Your task to perform on an android device: check google app version Image 0: 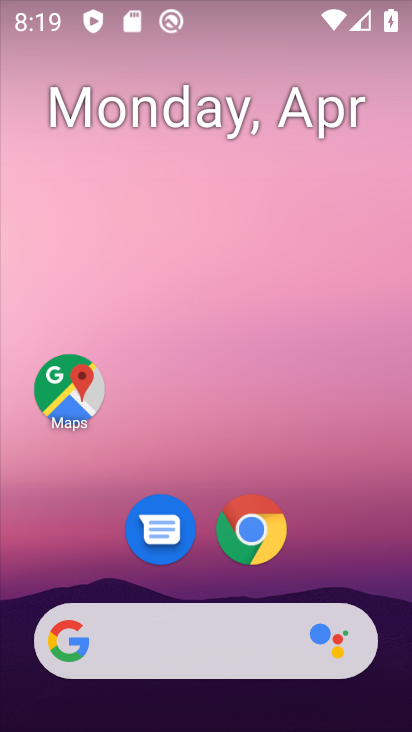
Step 0: drag from (367, 543) to (367, 166)
Your task to perform on an android device: check google app version Image 1: 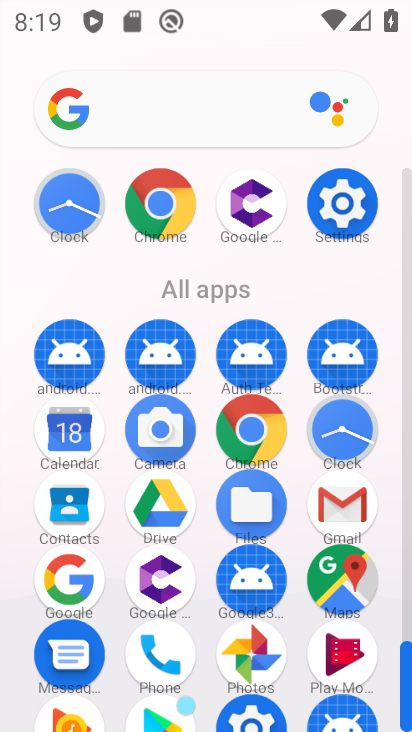
Step 1: click (71, 573)
Your task to perform on an android device: check google app version Image 2: 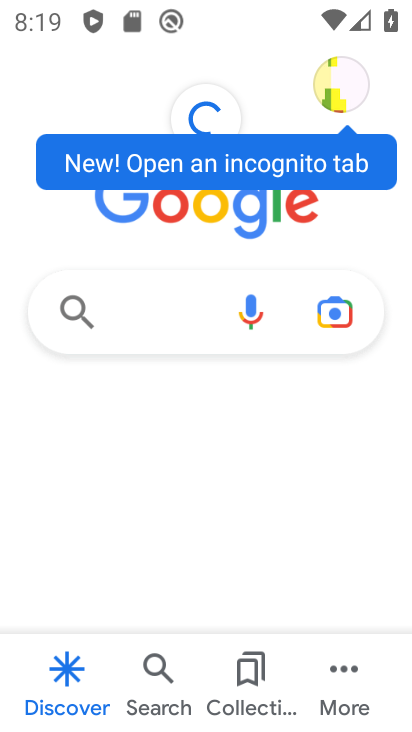
Step 2: click (361, 671)
Your task to perform on an android device: check google app version Image 3: 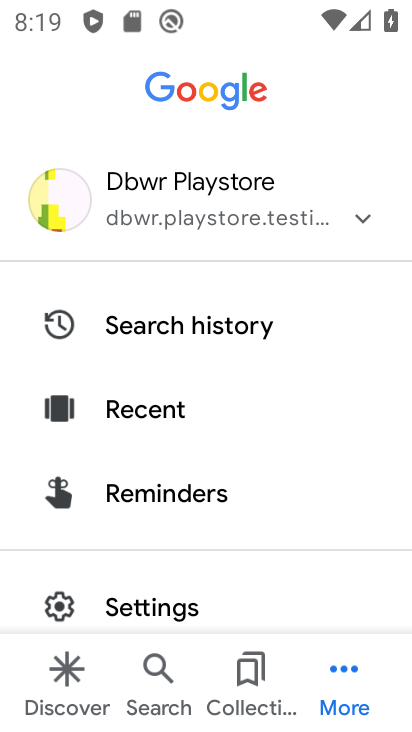
Step 3: click (195, 601)
Your task to perform on an android device: check google app version Image 4: 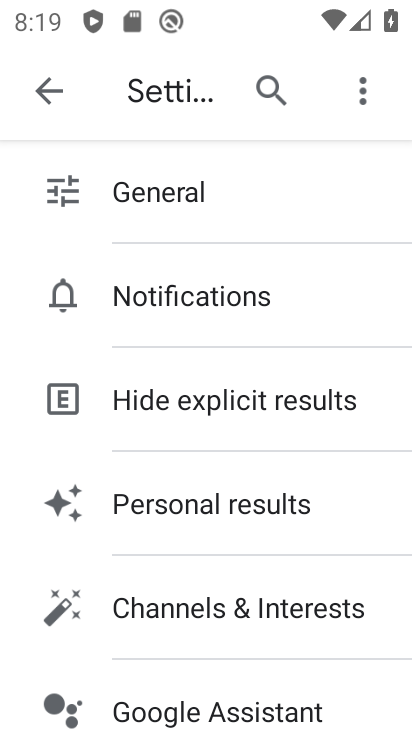
Step 4: drag from (328, 660) to (339, 292)
Your task to perform on an android device: check google app version Image 5: 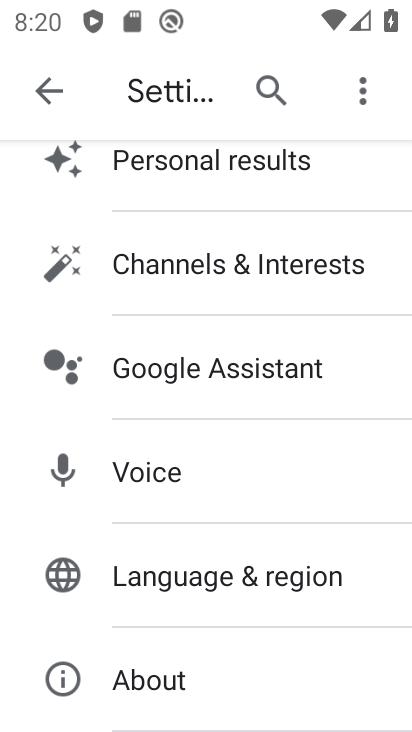
Step 5: click (161, 678)
Your task to perform on an android device: check google app version Image 6: 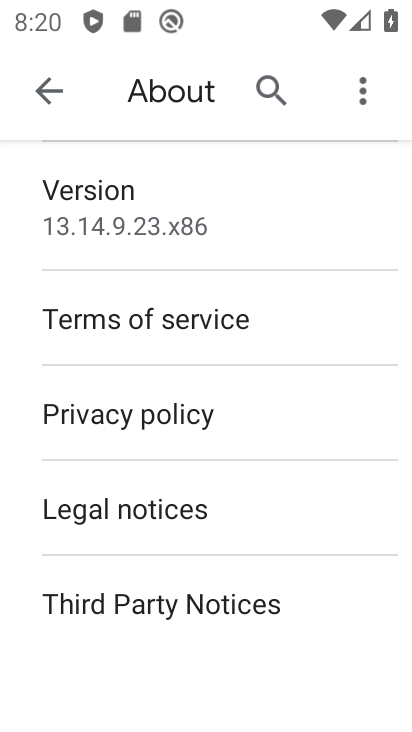
Step 6: task complete